Your task to perform on an android device: change the clock display to show seconds Image 0: 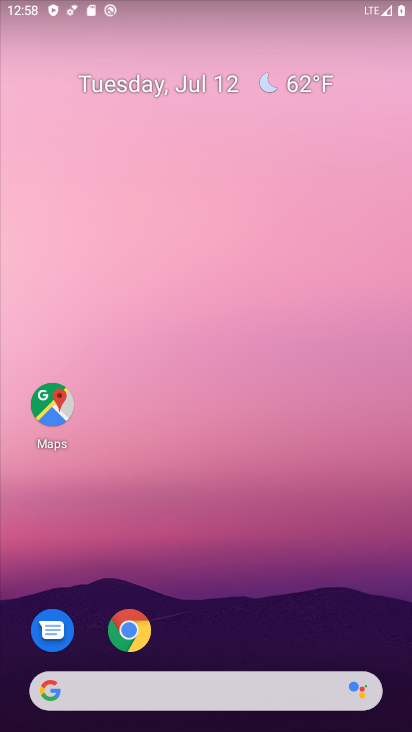
Step 0: drag from (190, 639) to (195, 85)
Your task to perform on an android device: change the clock display to show seconds Image 1: 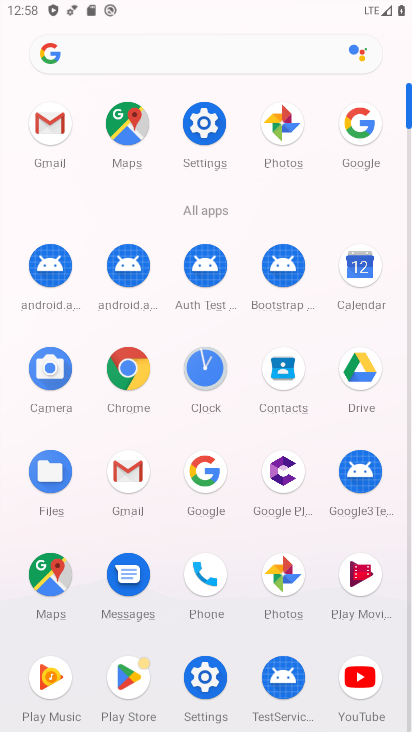
Step 1: click (194, 371)
Your task to perform on an android device: change the clock display to show seconds Image 2: 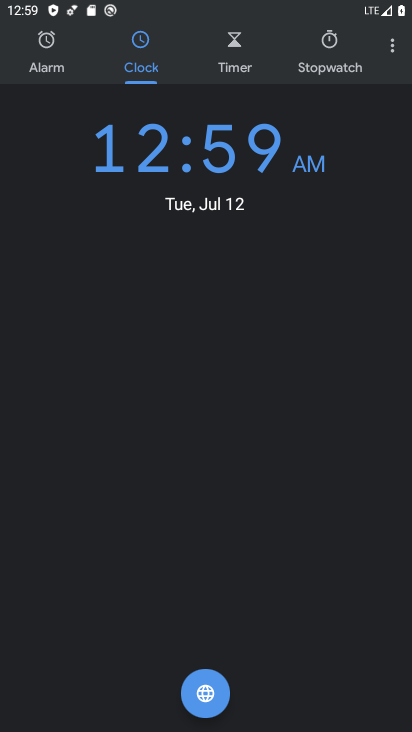
Step 2: click (392, 53)
Your task to perform on an android device: change the clock display to show seconds Image 3: 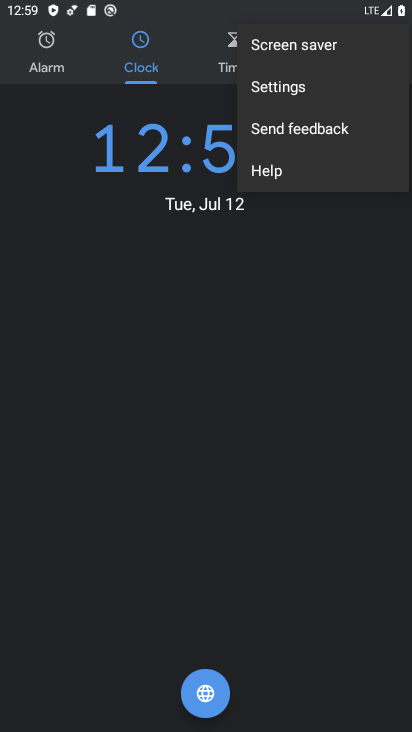
Step 3: click (294, 80)
Your task to perform on an android device: change the clock display to show seconds Image 4: 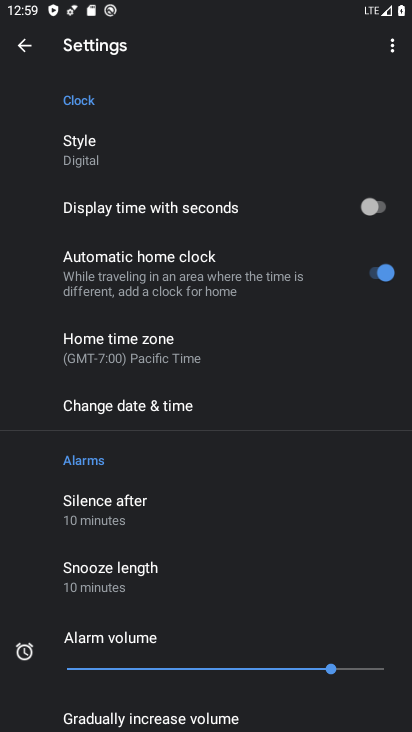
Step 4: click (370, 207)
Your task to perform on an android device: change the clock display to show seconds Image 5: 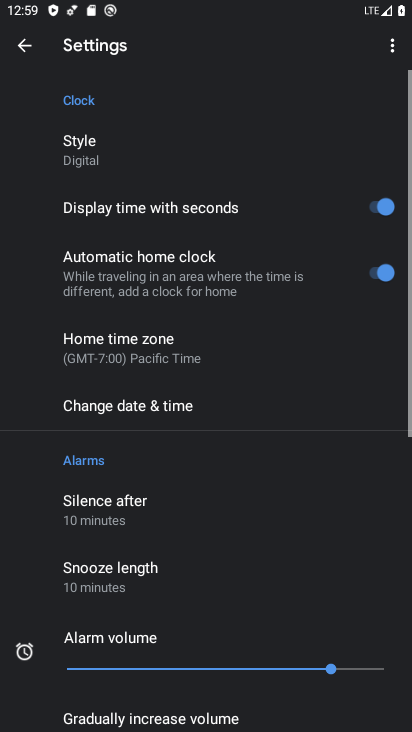
Step 5: task complete